Your task to perform on an android device: check out phone information Image 0: 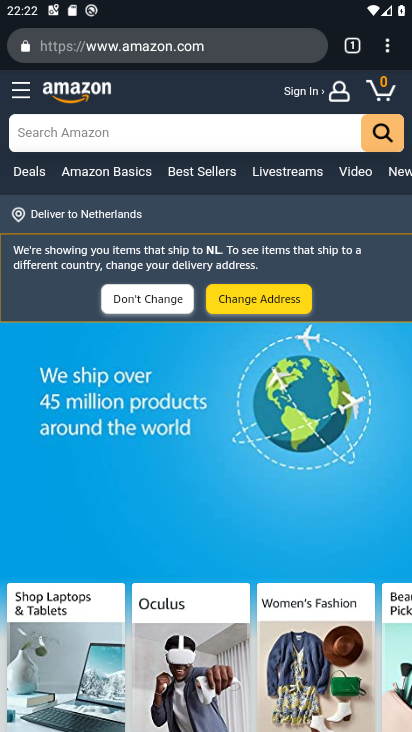
Step 0: press home button
Your task to perform on an android device: check out phone information Image 1: 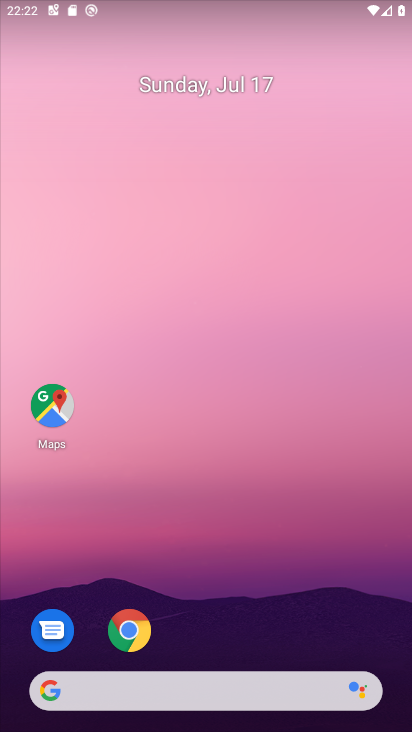
Step 1: drag from (259, 589) to (270, 44)
Your task to perform on an android device: check out phone information Image 2: 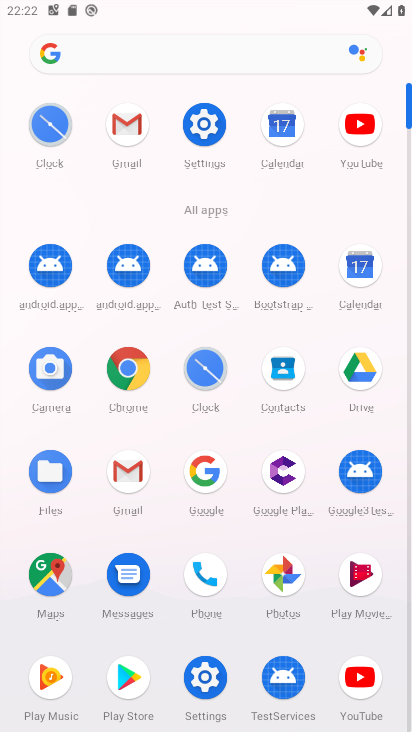
Step 2: click (210, 568)
Your task to perform on an android device: check out phone information Image 3: 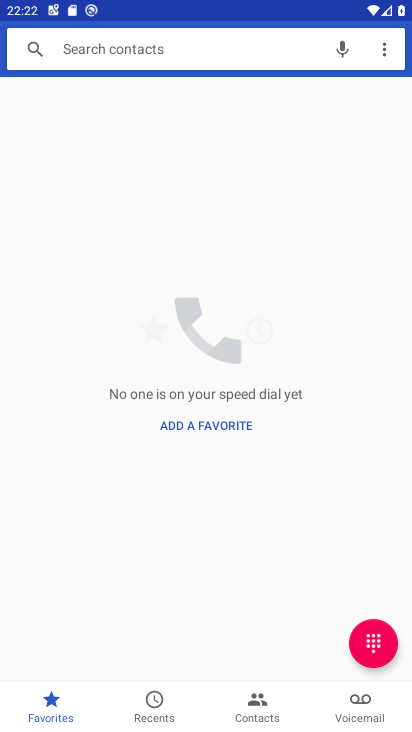
Step 3: click (384, 52)
Your task to perform on an android device: check out phone information Image 4: 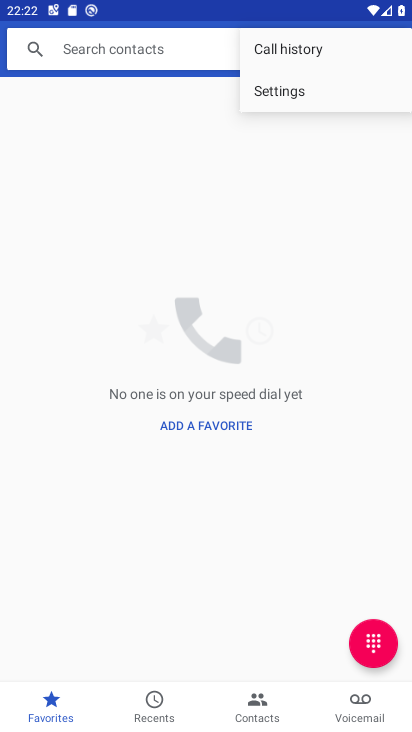
Step 4: click (319, 94)
Your task to perform on an android device: check out phone information Image 5: 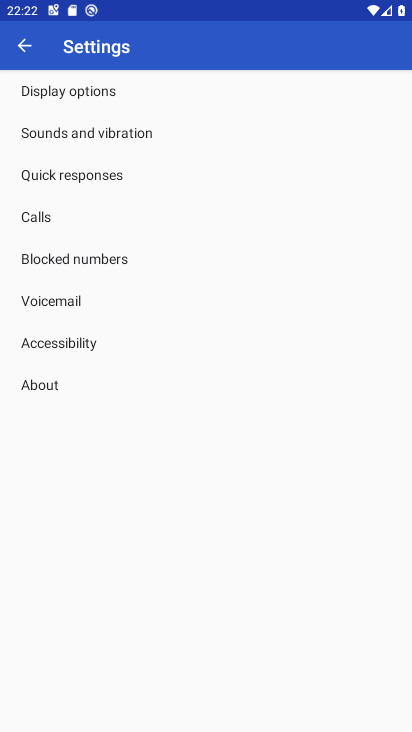
Step 5: click (54, 387)
Your task to perform on an android device: check out phone information Image 6: 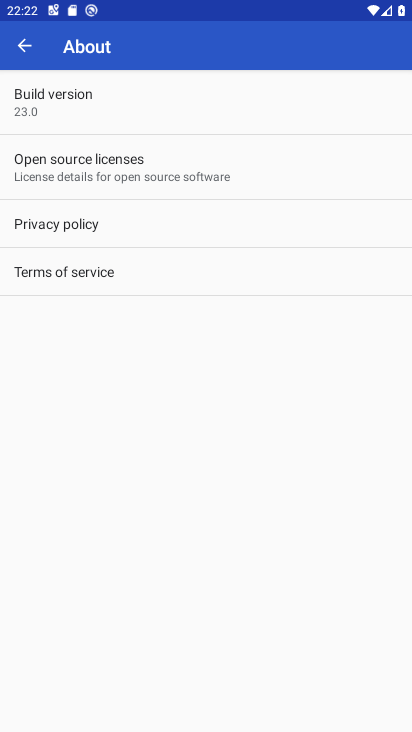
Step 6: task complete